Your task to perform on an android device: Show me recent news Image 0: 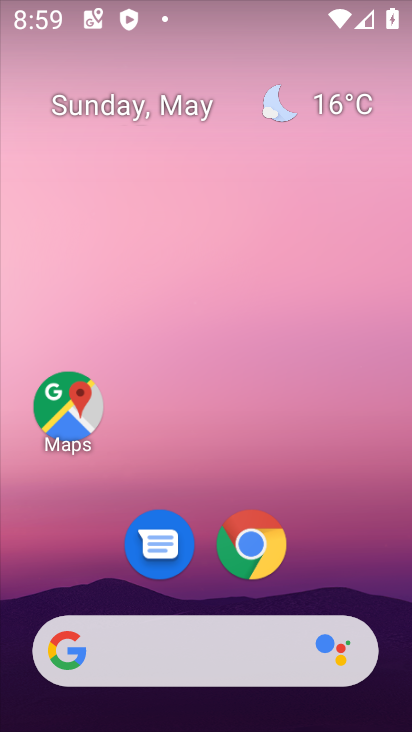
Step 0: drag from (312, 580) to (268, 144)
Your task to perform on an android device: Show me recent news Image 1: 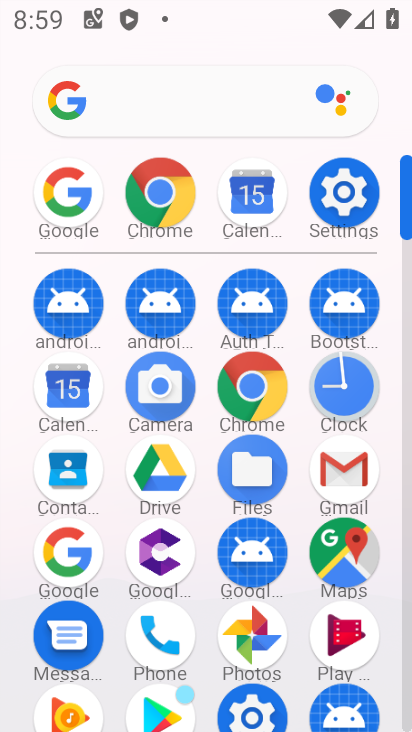
Step 1: click (338, 195)
Your task to perform on an android device: Show me recent news Image 2: 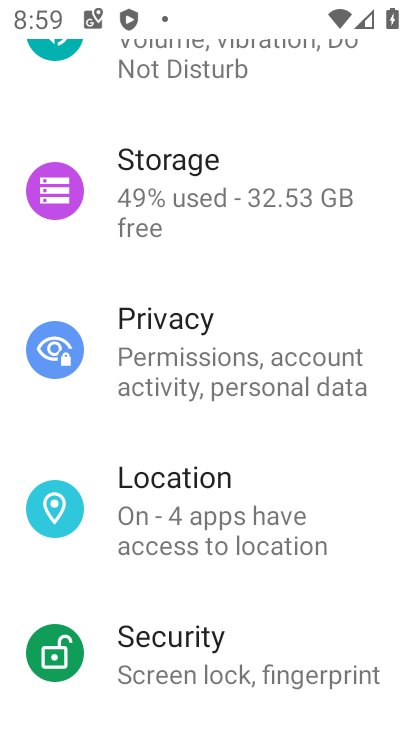
Step 2: drag from (289, 162) to (289, 519)
Your task to perform on an android device: Show me recent news Image 3: 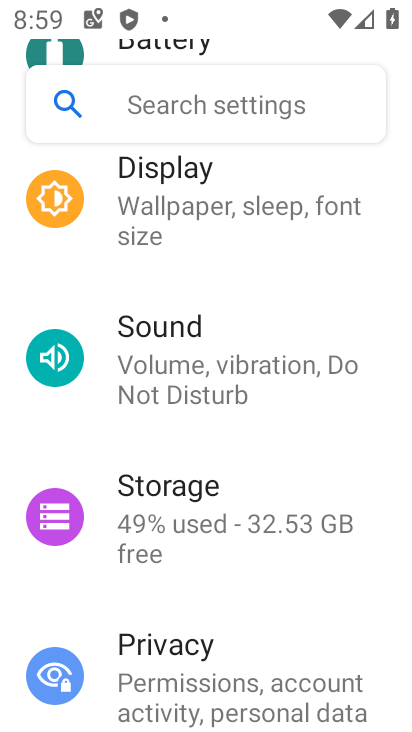
Step 3: drag from (213, 346) to (239, 646)
Your task to perform on an android device: Show me recent news Image 4: 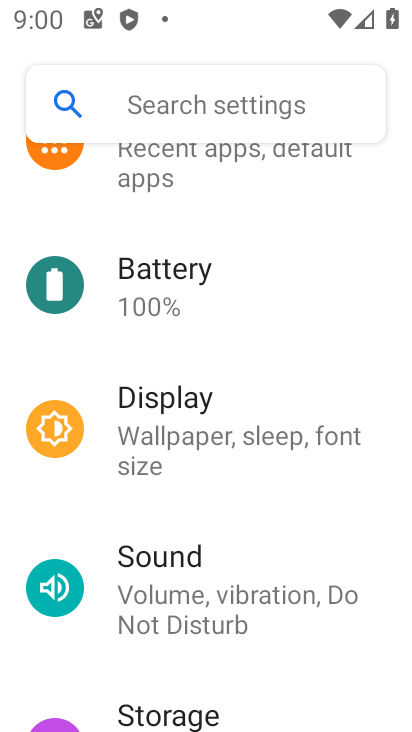
Step 4: drag from (282, 527) to (292, 677)
Your task to perform on an android device: Show me recent news Image 5: 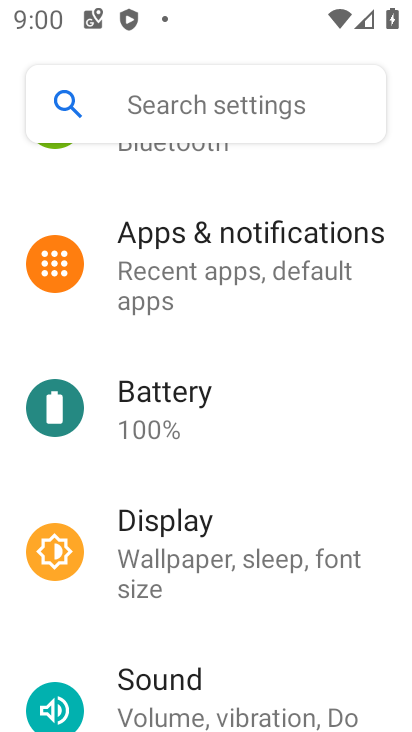
Step 5: press home button
Your task to perform on an android device: Show me recent news Image 6: 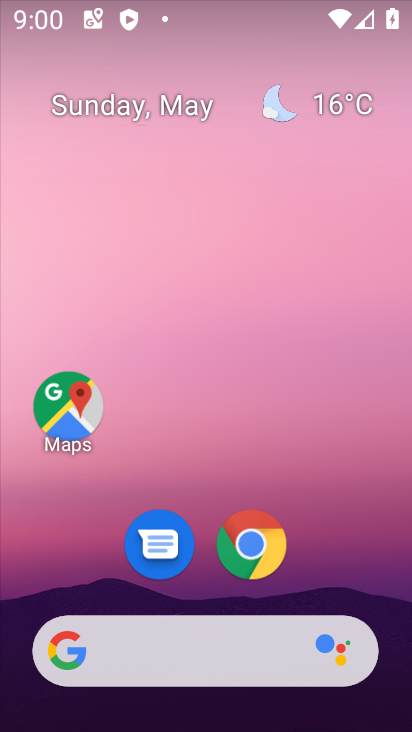
Step 6: drag from (288, 620) to (285, 233)
Your task to perform on an android device: Show me recent news Image 7: 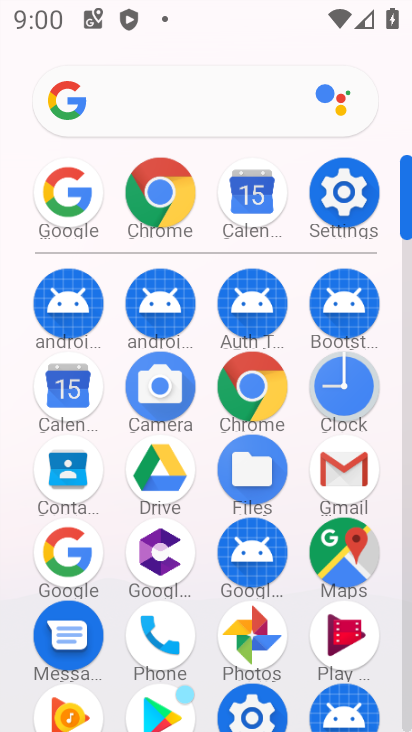
Step 7: click (75, 563)
Your task to perform on an android device: Show me recent news Image 8: 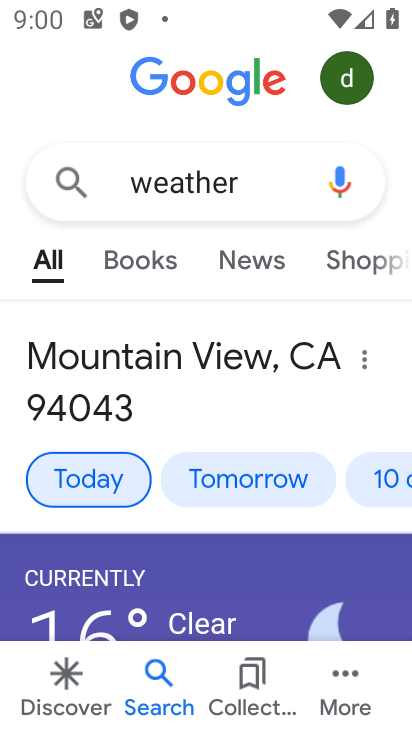
Step 8: click (259, 185)
Your task to perform on an android device: Show me recent news Image 9: 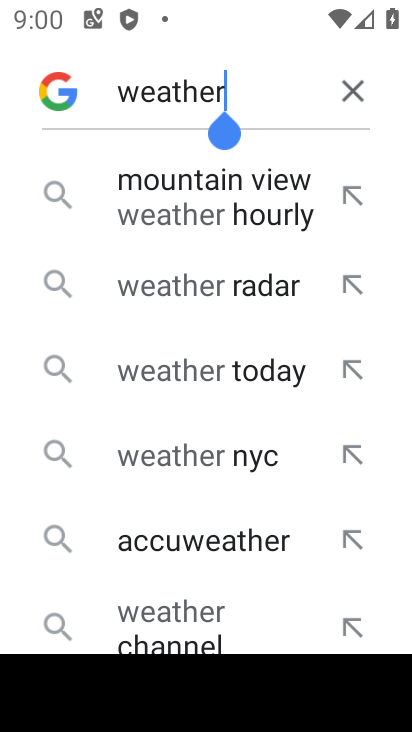
Step 9: click (347, 89)
Your task to perform on an android device: Show me recent news Image 10: 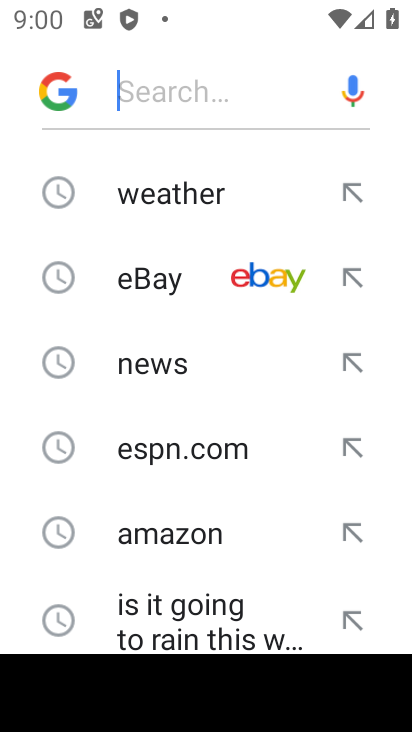
Step 10: drag from (207, 577) to (199, 211)
Your task to perform on an android device: Show me recent news Image 11: 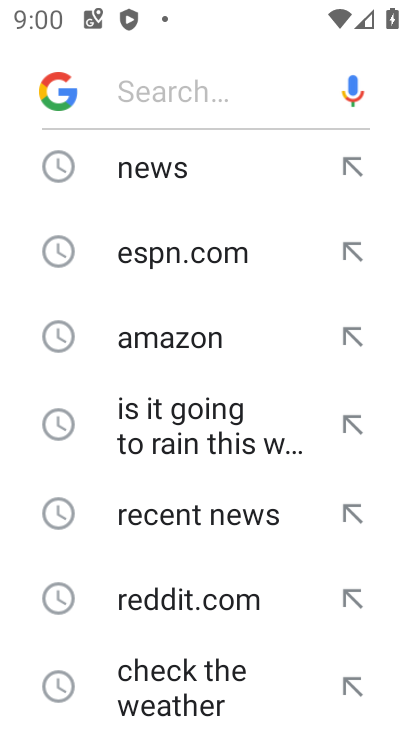
Step 11: click (193, 515)
Your task to perform on an android device: Show me recent news Image 12: 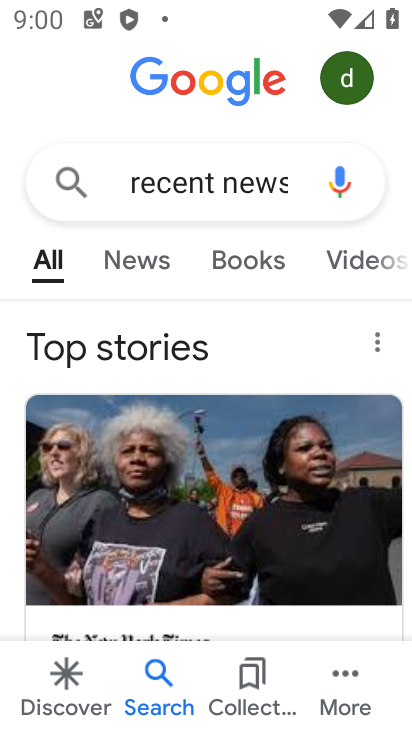
Step 12: task complete